Your task to perform on an android device: turn on notifications settings in the gmail app Image 0: 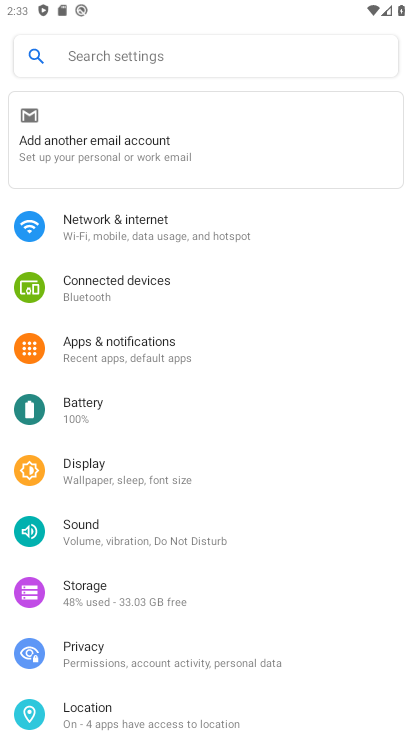
Step 0: press home button
Your task to perform on an android device: turn on notifications settings in the gmail app Image 1: 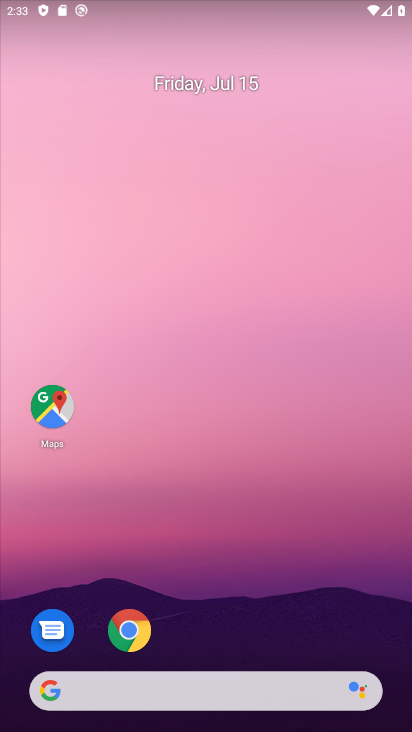
Step 1: drag from (266, 617) to (237, 153)
Your task to perform on an android device: turn on notifications settings in the gmail app Image 2: 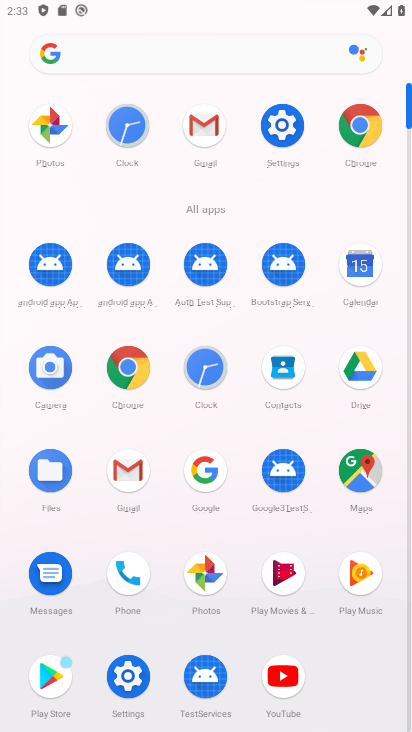
Step 2: click (125, 481)
Your task to perform on an android device: turn on notifications settings in the gmail app Image 3: 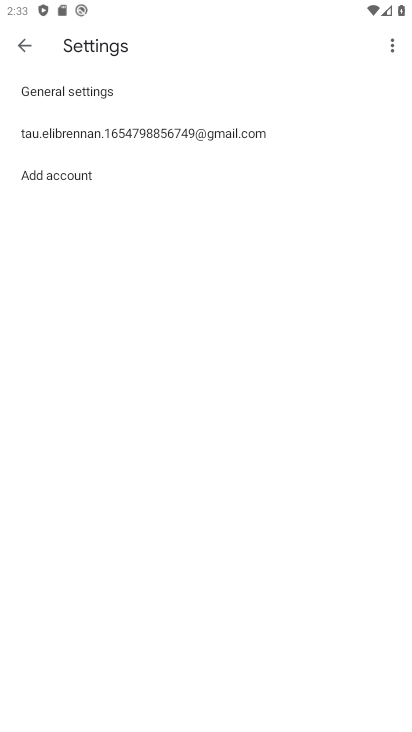
Step 3: click (169, 130)
Your task to perform on an android device: turn on notifications settings in the gmail app Image 4: 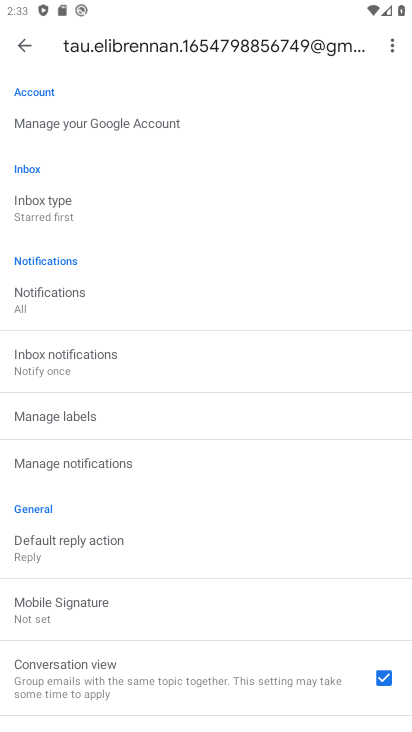
Step 4: click (91, 467)
Your task to perform on an android device: turn on notifications settings in the gmail app Image 5: 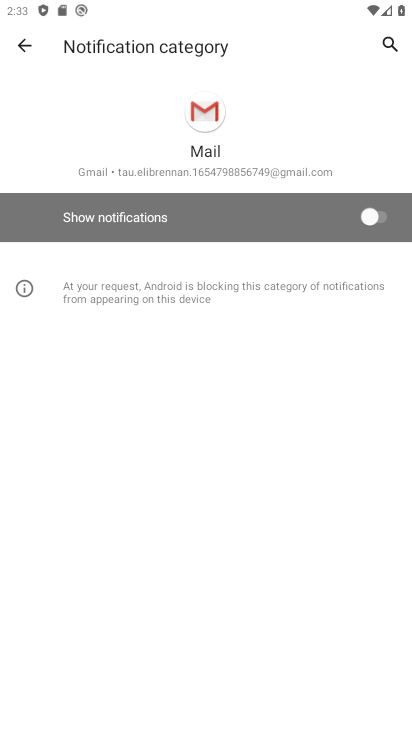
Step 5: click (373, 213)
Your task to perform on an android device: turn on notifications settings in the gmail app Image 6: 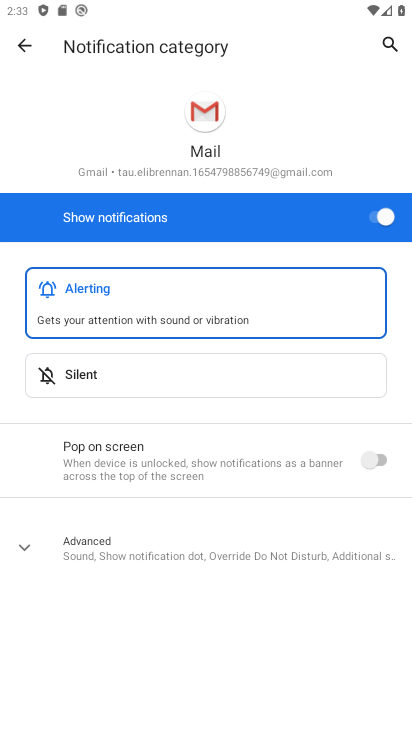
Step 6: task complete